Your task to perform on an android device: open app "VLC for Android" (install if not already installed) and go to login screen Image 0: 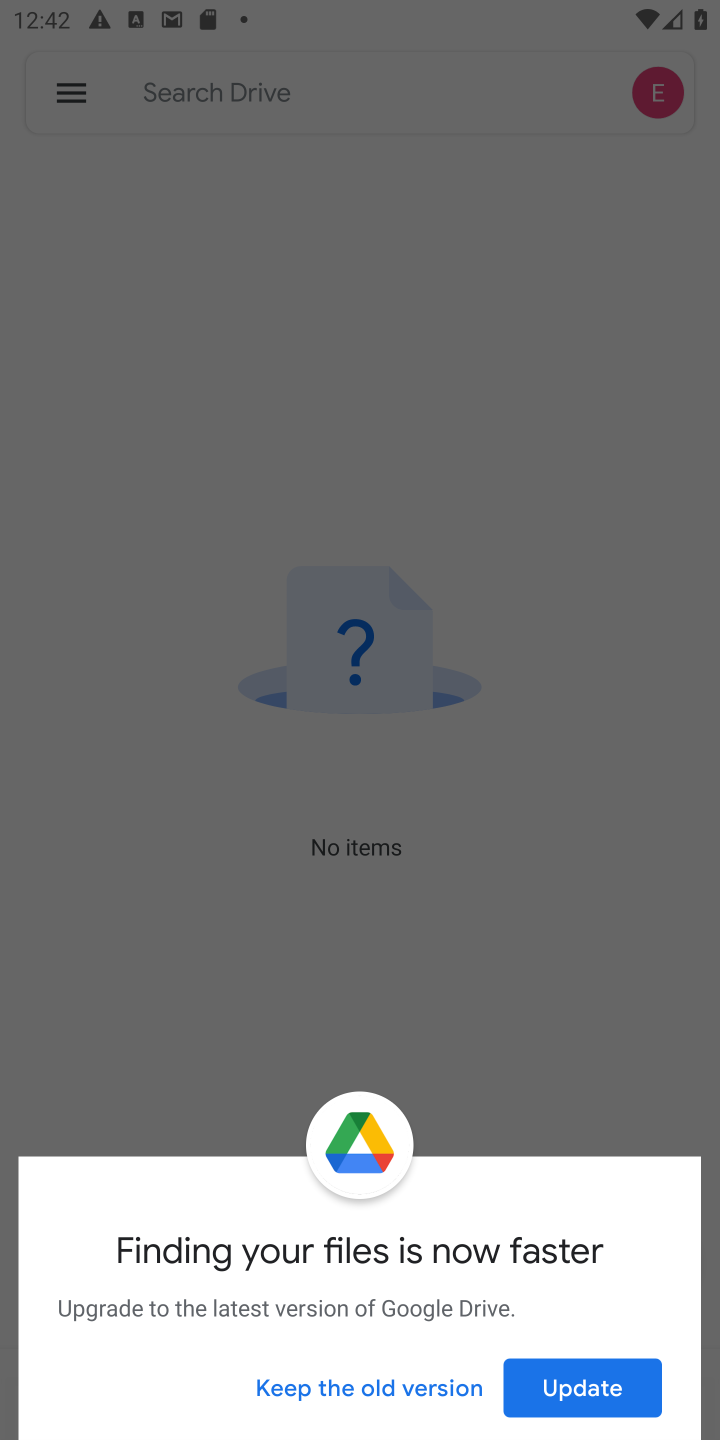
Step 0: press home button
Your task to perform on an android device: open app "VLC for Android" (install if not already installed) and go to login screen Image 1: 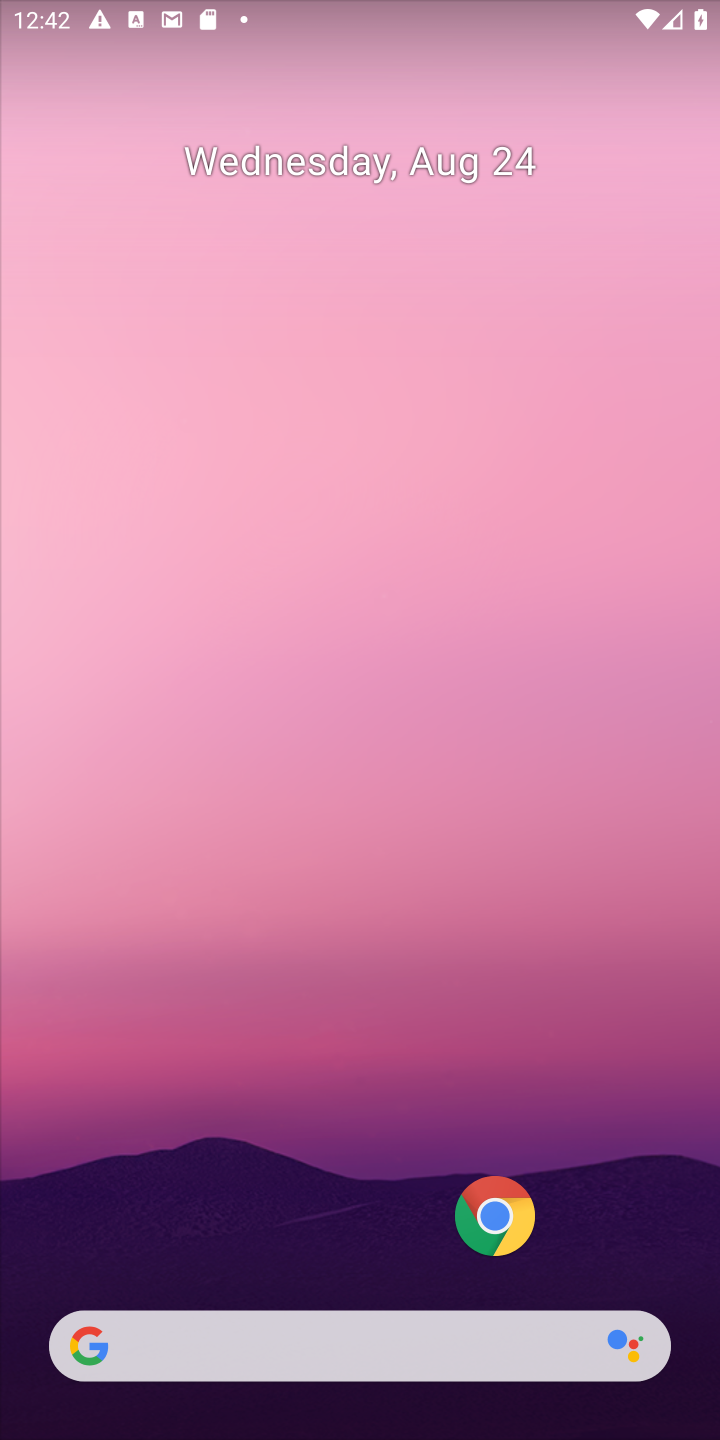
Step 1: drag from (323, 1307) to (420, 10)
Your task to perform on an android device: open app "VLC for Android" (install if not already installed) and go to login screen Image 2: 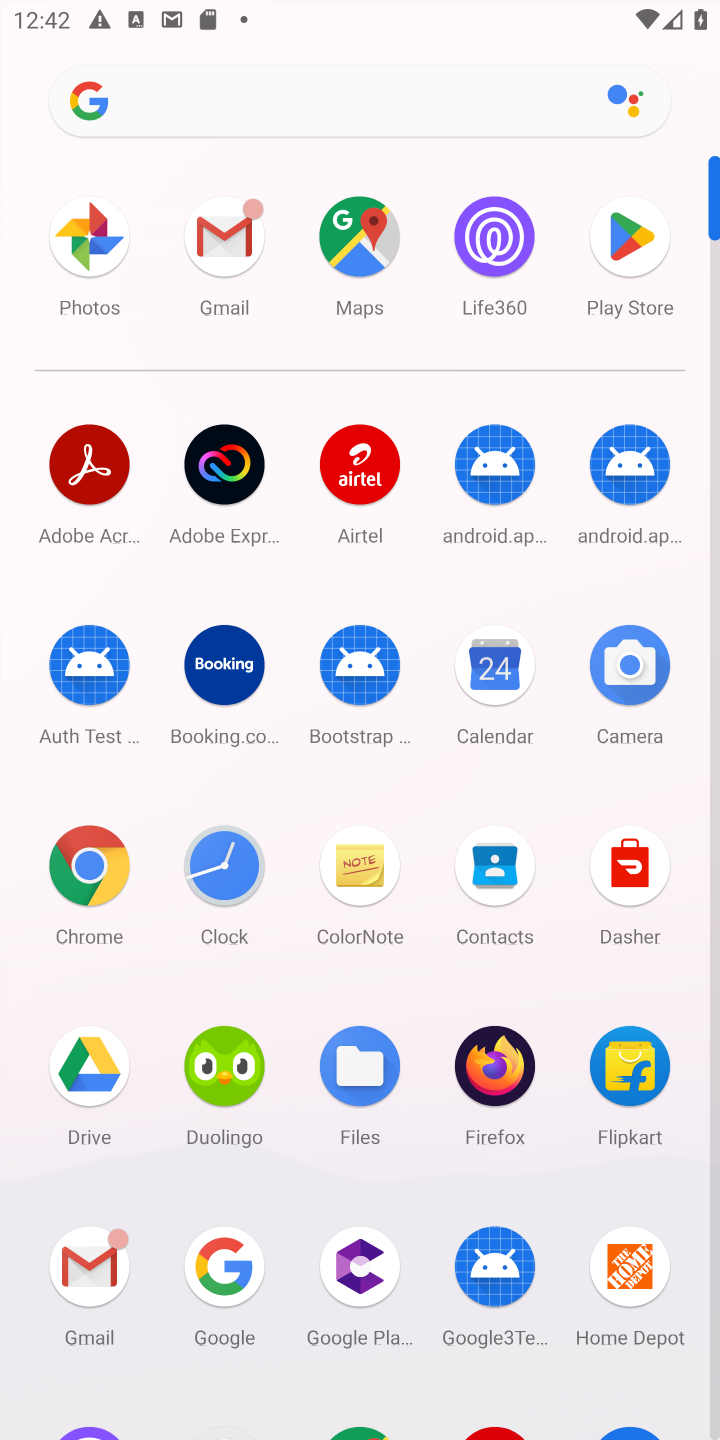
Step 2: click (637, 240)
Your task to perform on an android device: open app "VLC for Android" (install if not already installed) and go to login screen Image 3: 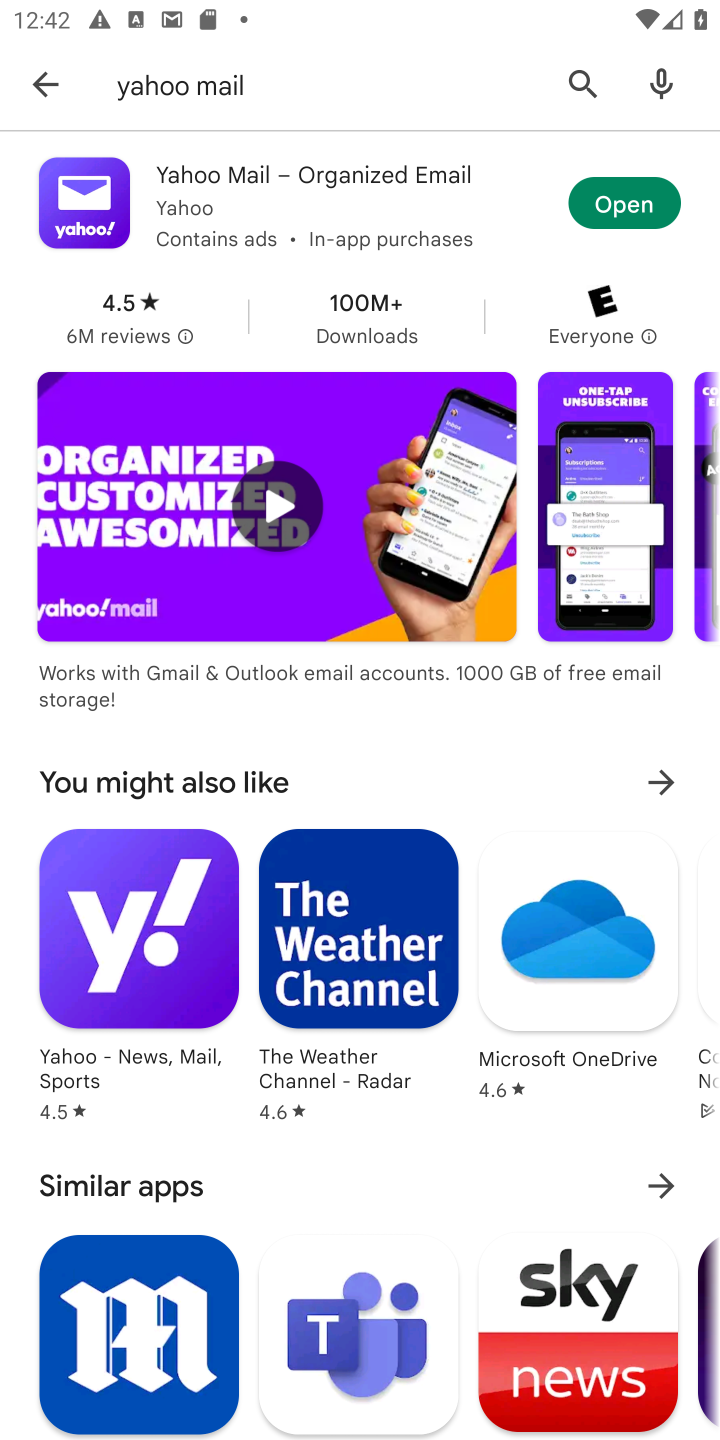
Step 3: press back button
Your task to perform on an android device: open app "VLC for Android" (install if not already installed) and go to login screen Image 4: 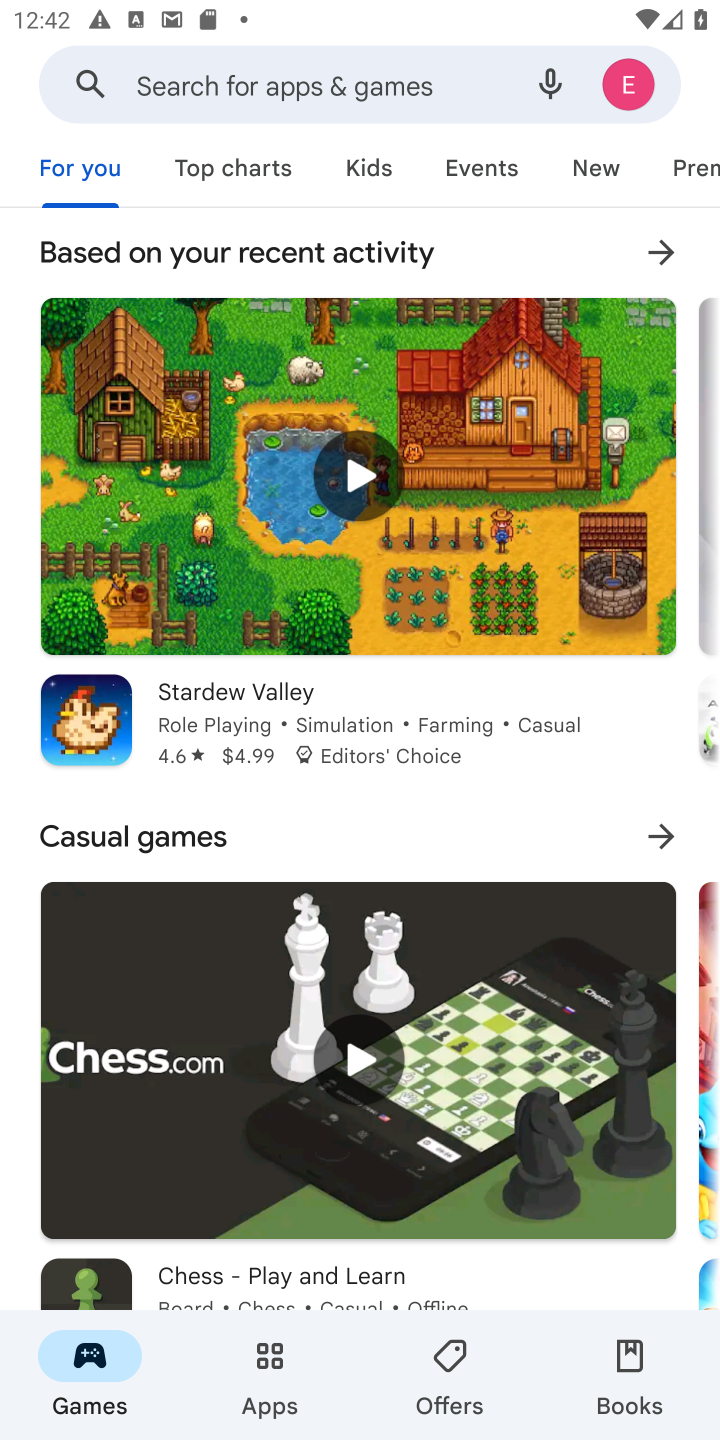
Step 4: click (386, 78)
Your task to perform on an android device: open app "VLC for Android" (install if not already installed) and go to login screen Image 5: 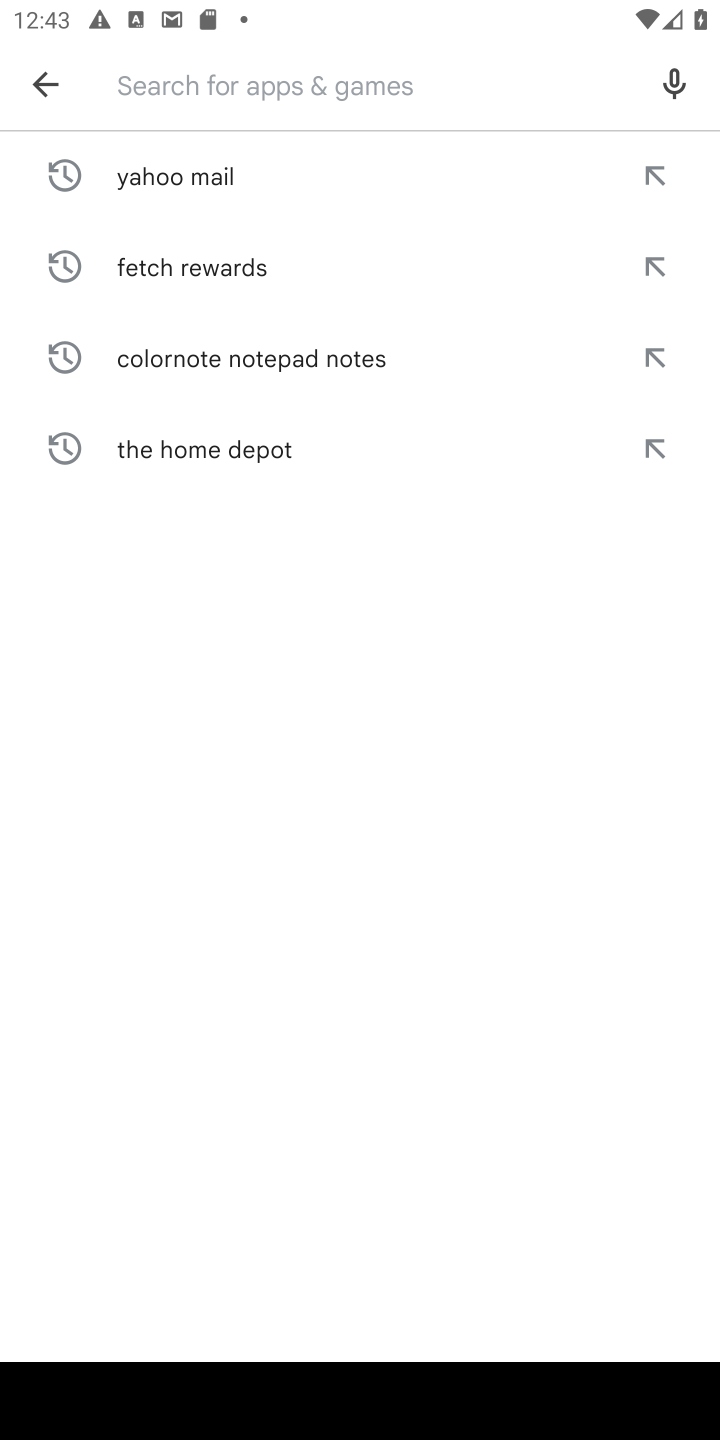
Step 5: type "VLC for Android"
Your task to perform on an android device: open app "VLC for Android" (install if not already installed) and go to login screen Image 6: 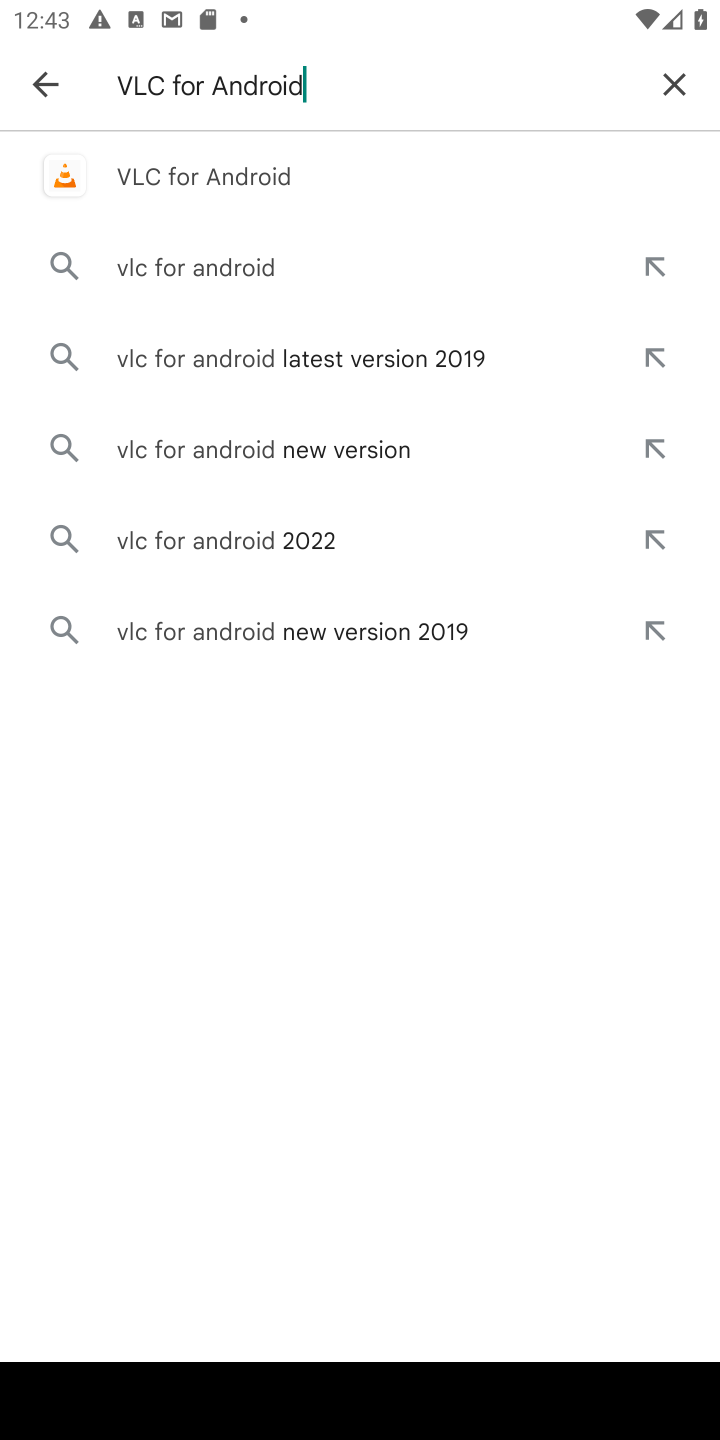
Step 6: click (246, 177)
Your task to perform on an android device: open app "VLC for Android" (install if not already installed) and go to login screen Image 7: 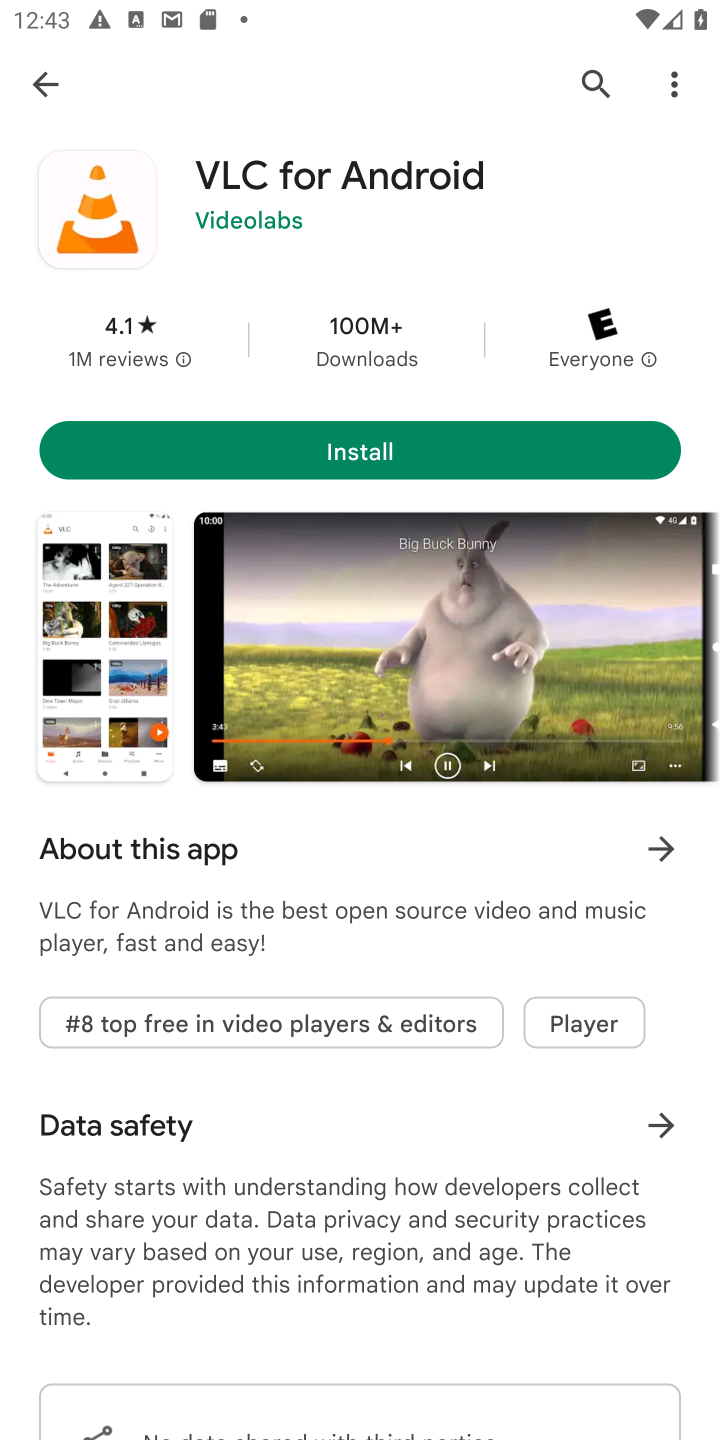
Step 7: click (343, 448)
Your task to perform on an android device: open app "VLC for Android" (install if not already installed) and go to login screen Image 8: 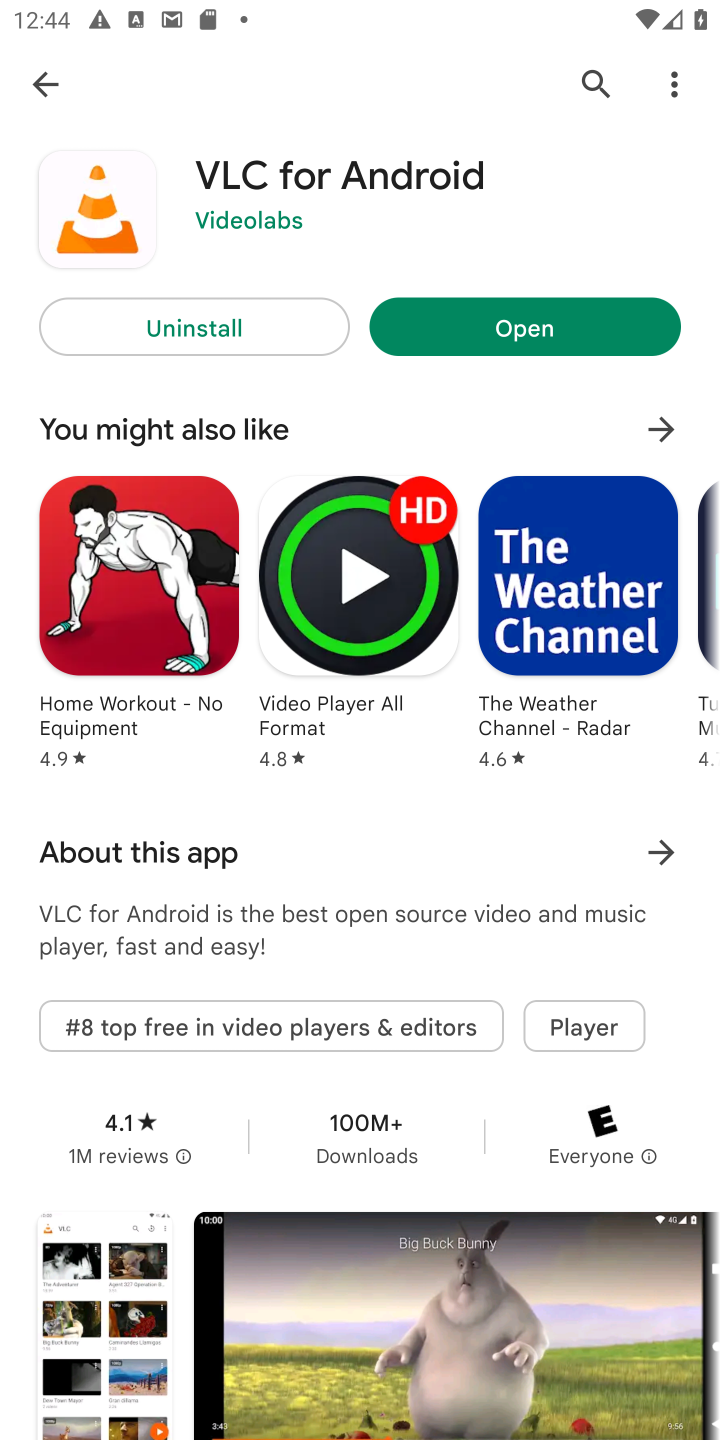
Step 8: click (486, 318)
Your task to perform on an android device: open app "VLC for Android" (install if not already installed) and go to login screen Image 9: 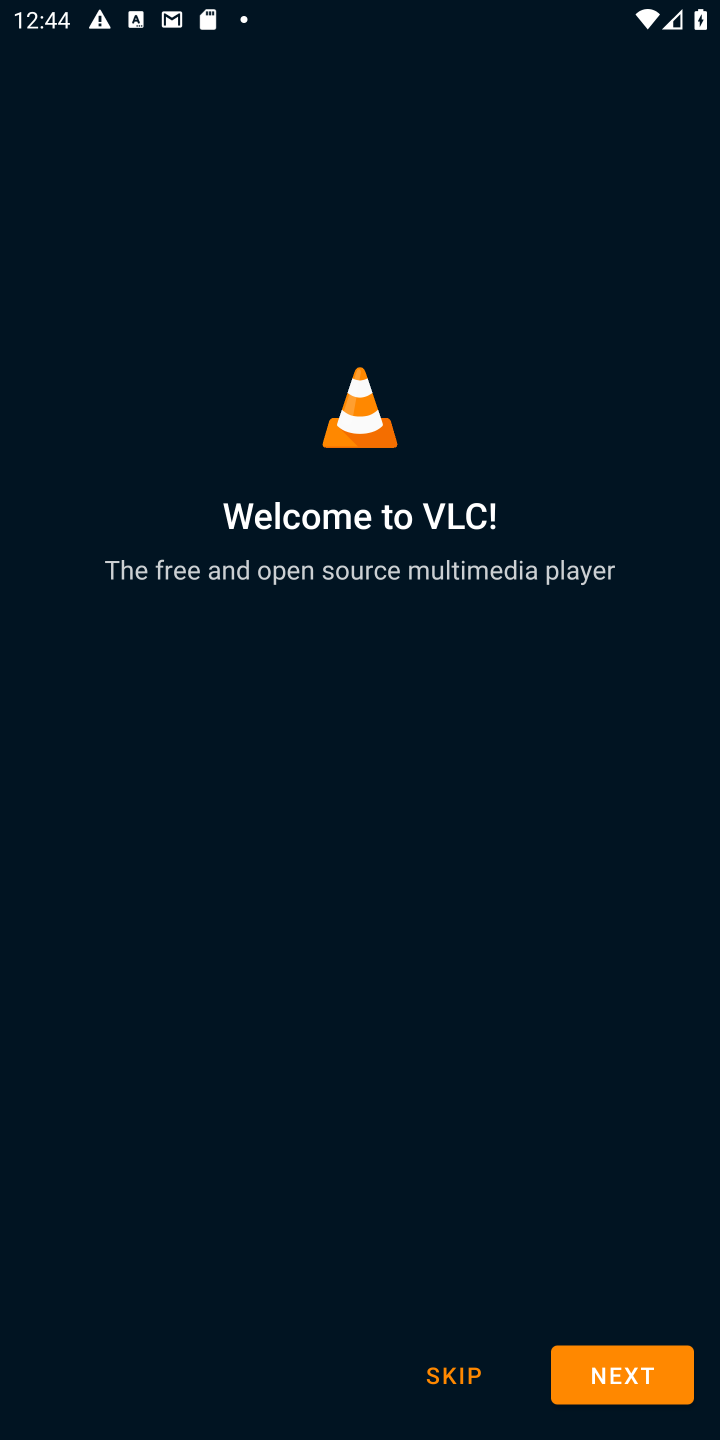
Step 9: click (613, 1390)
Your task to perform on an android device: open app "VLC for Android" (install if not already installed) and go to login screen Image 10: 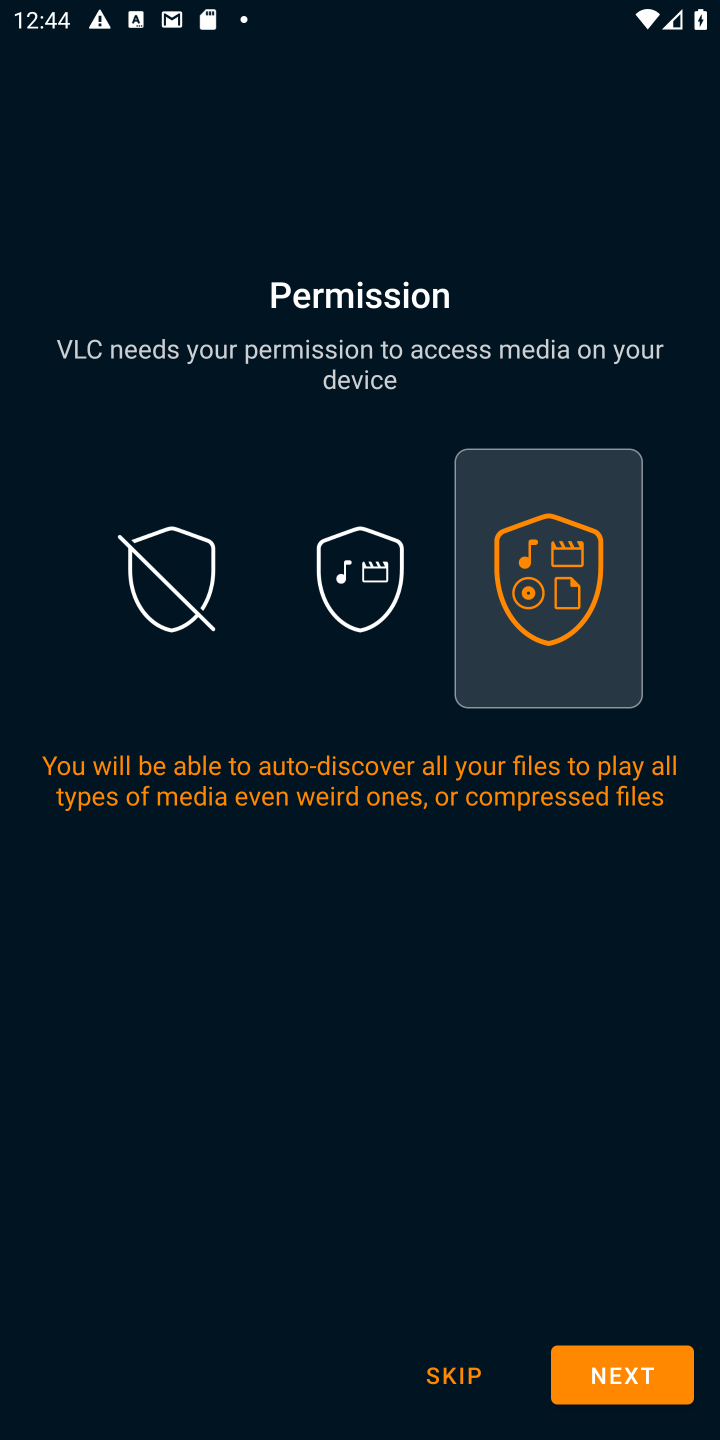
Step 10: click (613, 1390)
Your task to perform on an android device: open app "VLC for Android" (install if not already installed) and go to login screen Image 11: 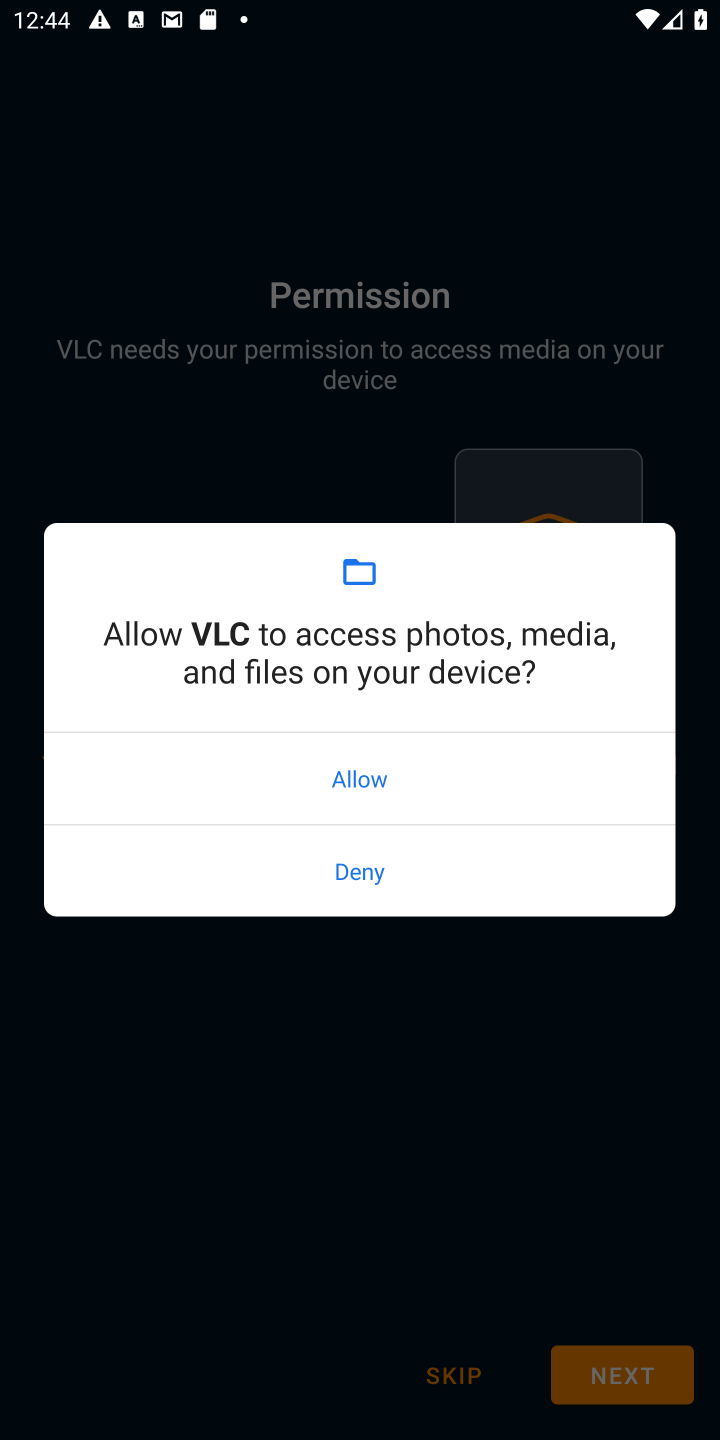
Step 11: click (379, 756)
Your task to perform on an android device: open app "VLC for Android" (install if not already installed) and go to login screen Image 12: 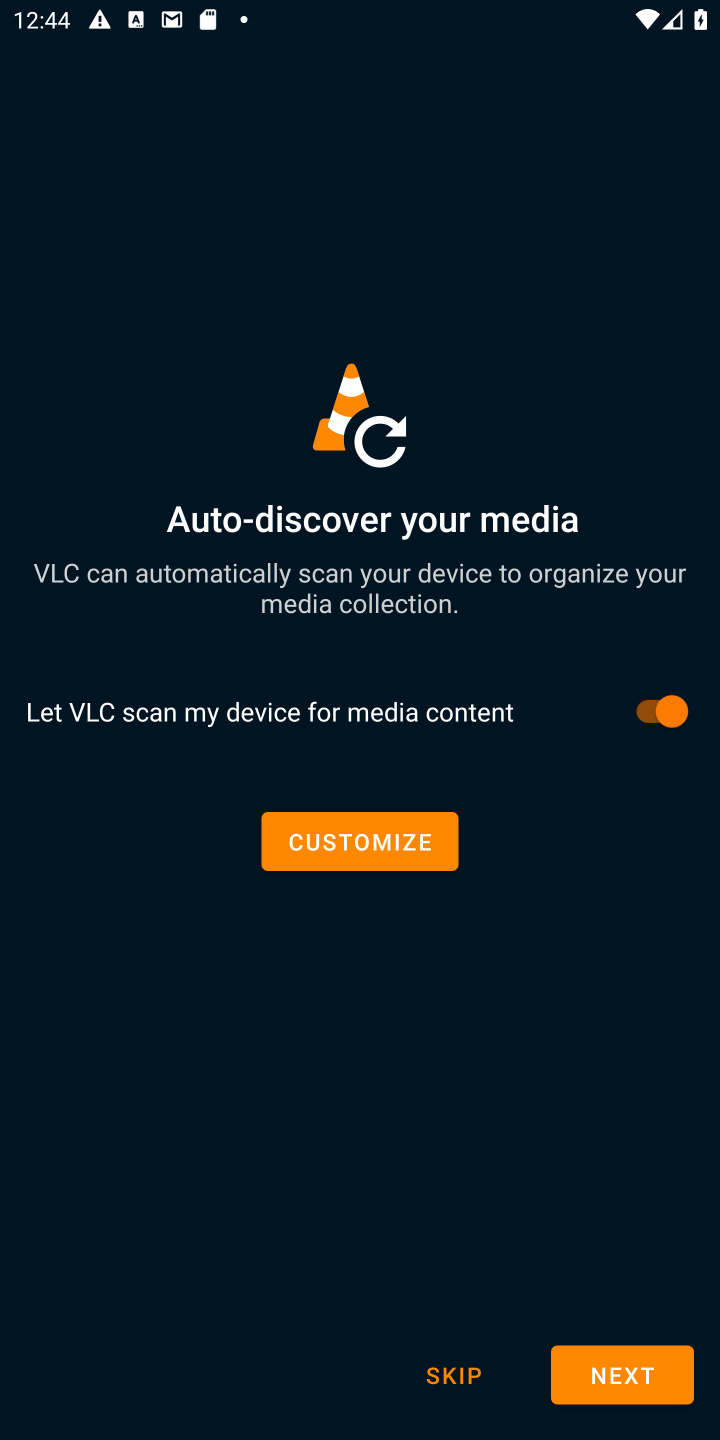
Step 12: click (644, 1371)
Your task to perform on an android device: open app "VLC for Android" (install if not already installed) and go to login screen Image 13: 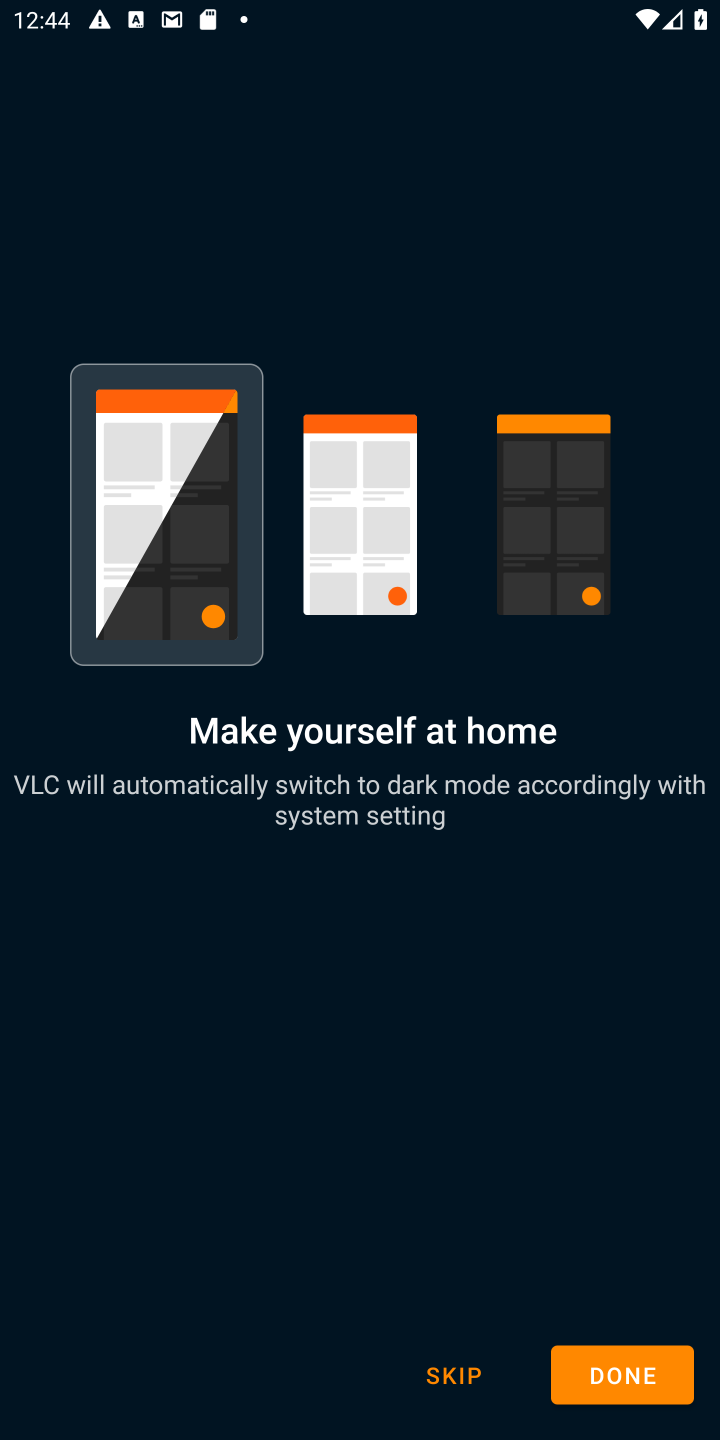
Step 13: click (644, 1371)
Your task to perform on an android device: open app "VLC for Android" (install if not already installed) and go to login screen Image 14: 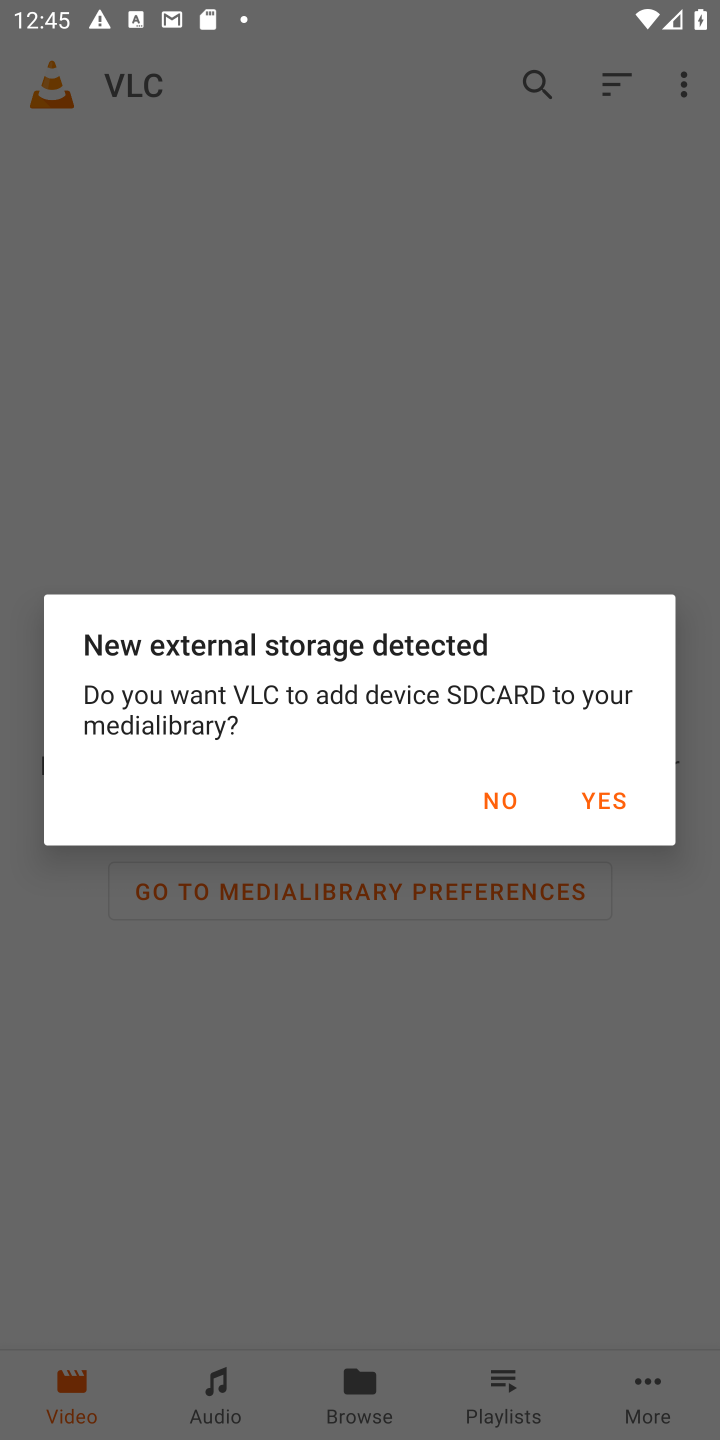
Step 14: task complete